Your task to perform on an android device: toggle data saver in the chrome app Image 0: 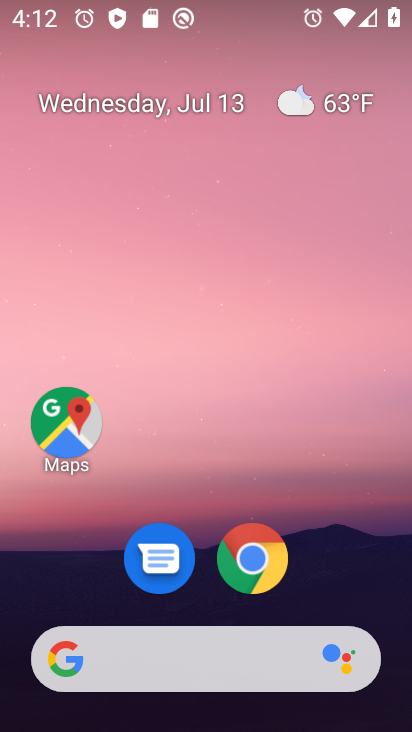
Step 0: click (252, 568)
Your task to perform on an android device: toggle data saver in the chrome app Image 1: 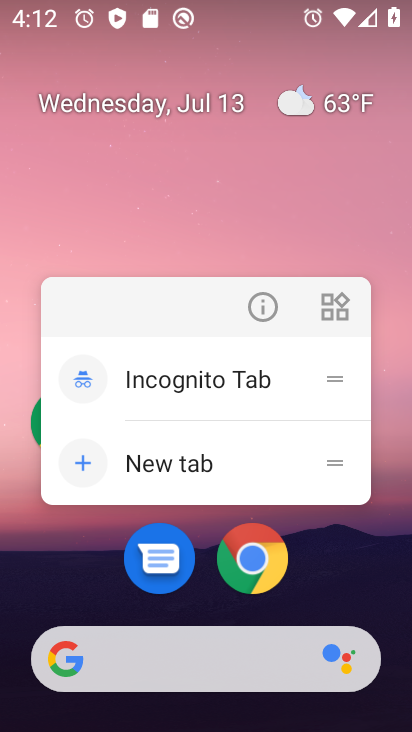
Step 1: click (252, 568)
Your task to perform on an android device: toggle data saver in the chrome app Image 2: 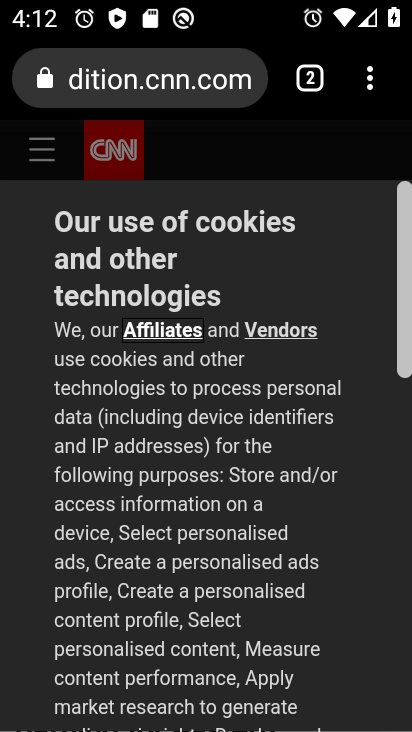
Step 2: click (371, 87)
Your task to perform on an android device: toggle data saver in the chrome app Image 3: 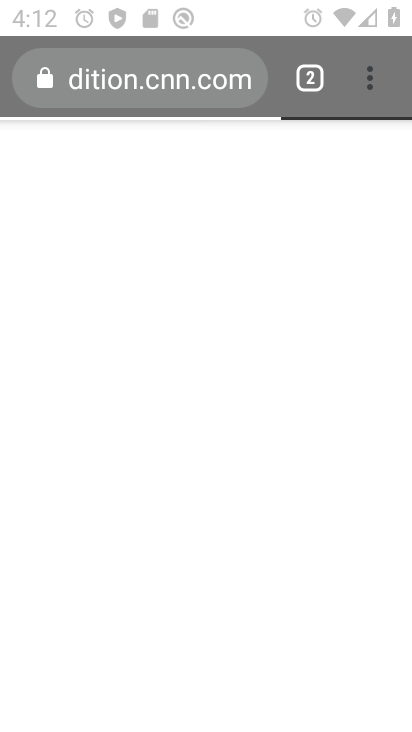
Step 3: click (367, 77)
Your task to perform on an android device: toggle data saver in the chrome app Image 4: 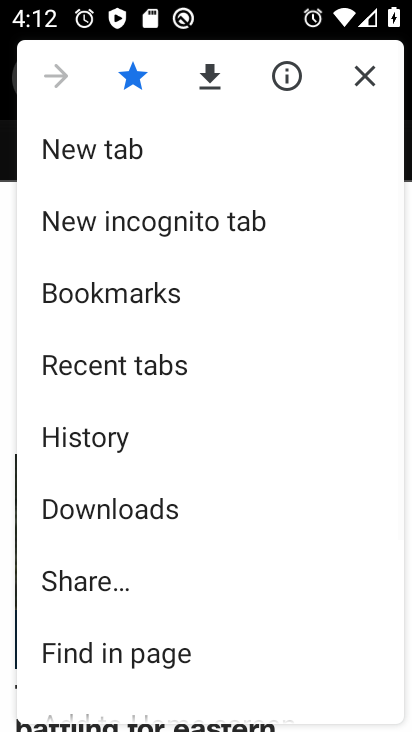
Step 4: drag from (151, 665) to (215, 241)
Your task to perform on an android device: toggle data saver in the chrome app Image 5: 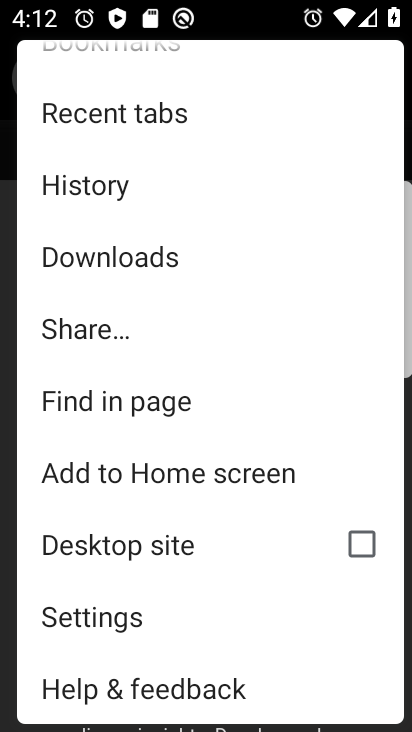
Step 5: click (98, 609)
Your task to perform on an android device: toggle data saver in the chrome app Image 6: 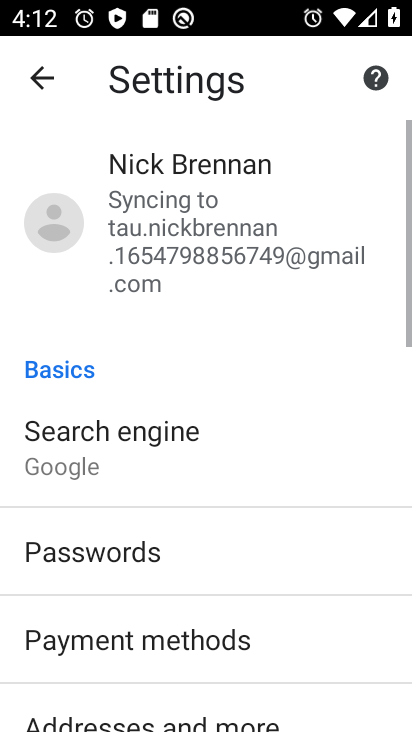
Step 6: drag from (91, 696) to (97, 401)
Your task to perform on an android device: toggle data saver in the chrome app Image 7: 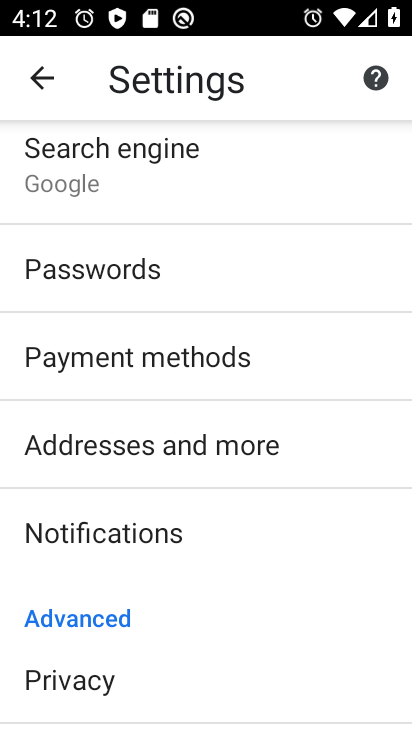
Step 7: drag from (102, 673) to (126, 360)
Your task to perform on an android device: toggle data saver in the chrome app Image 8: 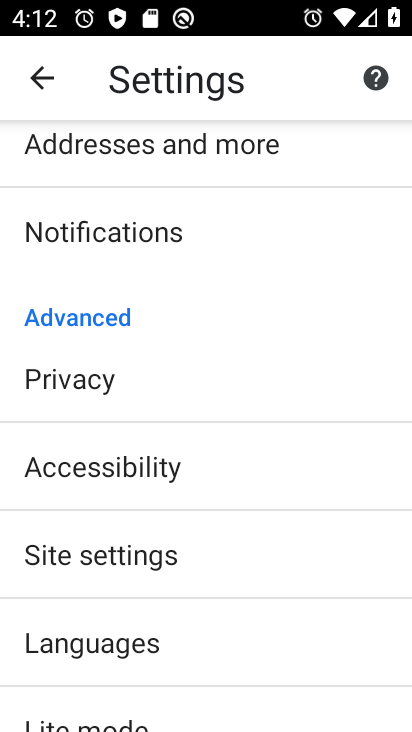
Step 8: click (76, 723)
Your task to perform on an android device: toggle data saver in the chrome app Image 9: 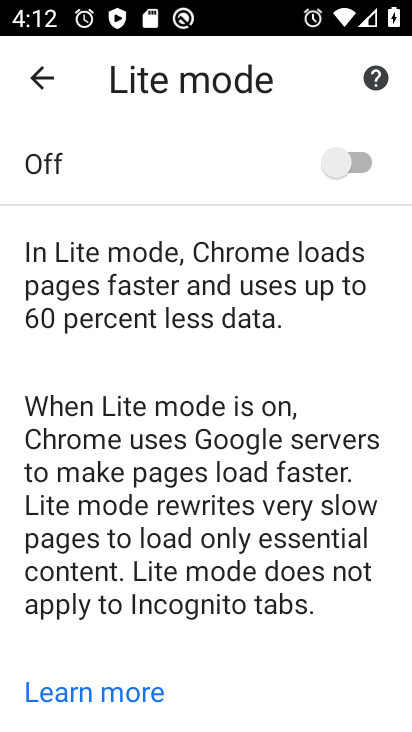
Step 9: click (360, 161)
Your task to perform on an android device: toggle data saver in the chrome app Image 10: 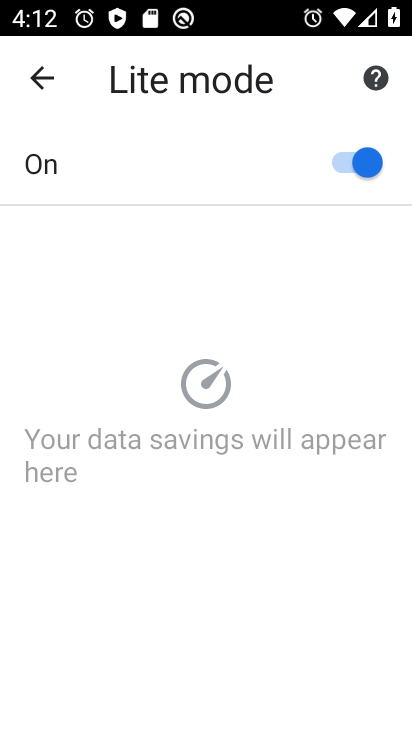
Step 10: task complete